Your task to perform on an android device: change the clock display to digital Image 0: 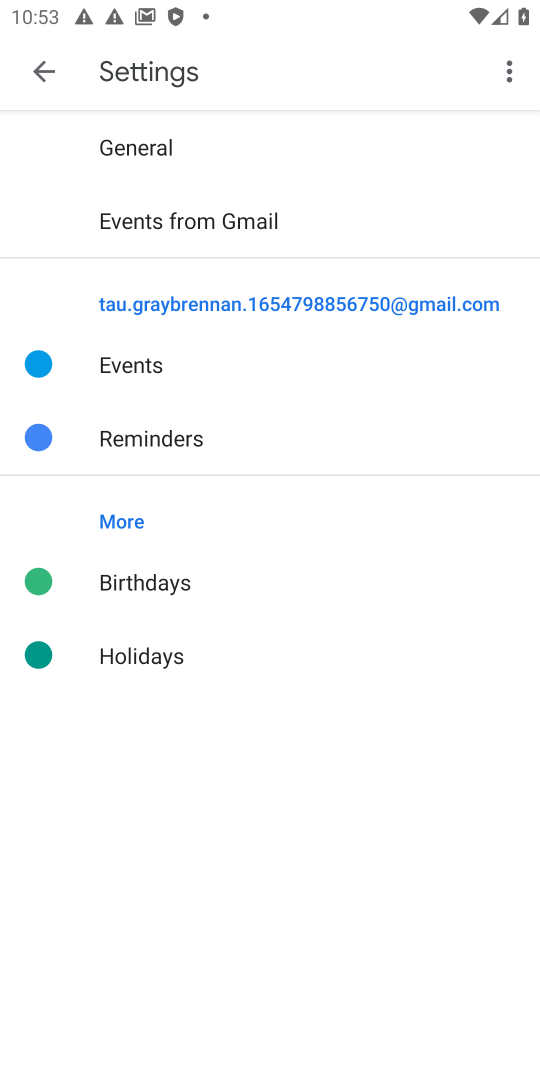
Step 0: press home button
Your task to perform on an android device: change the clock display to digital Image 1: 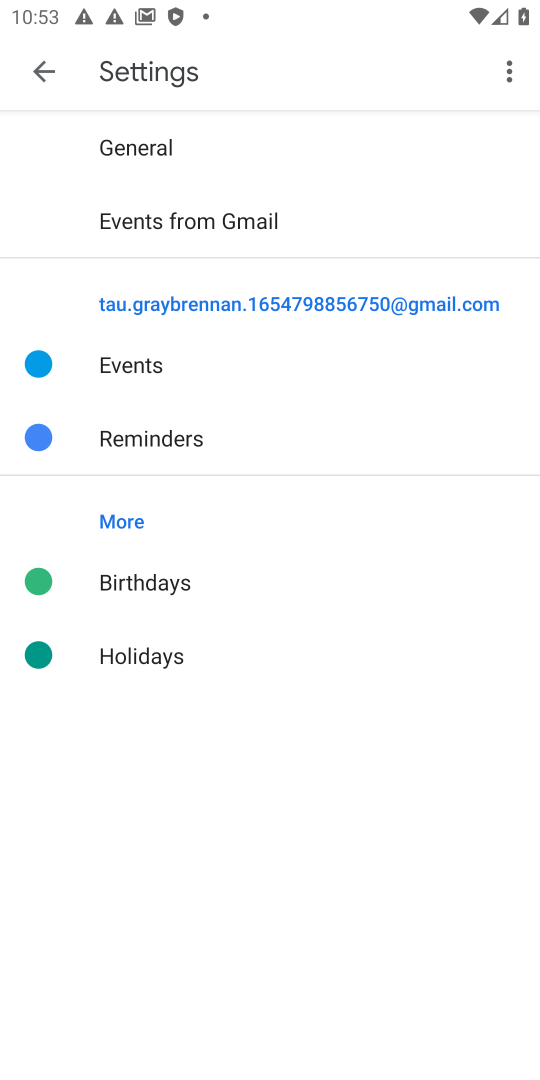
Step 1: press home button
Your task to perform on an android device: change the clock display to digital Image 2: 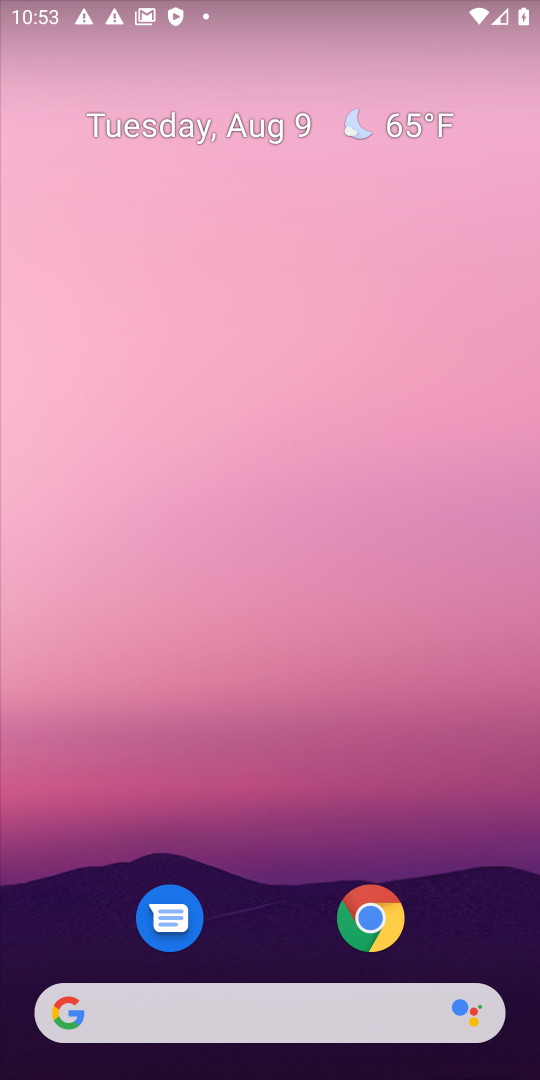
Step 2: drag from (275, 917) to (288, 176)
Your task to perform on an android device: change the clock display to digital Image 3: 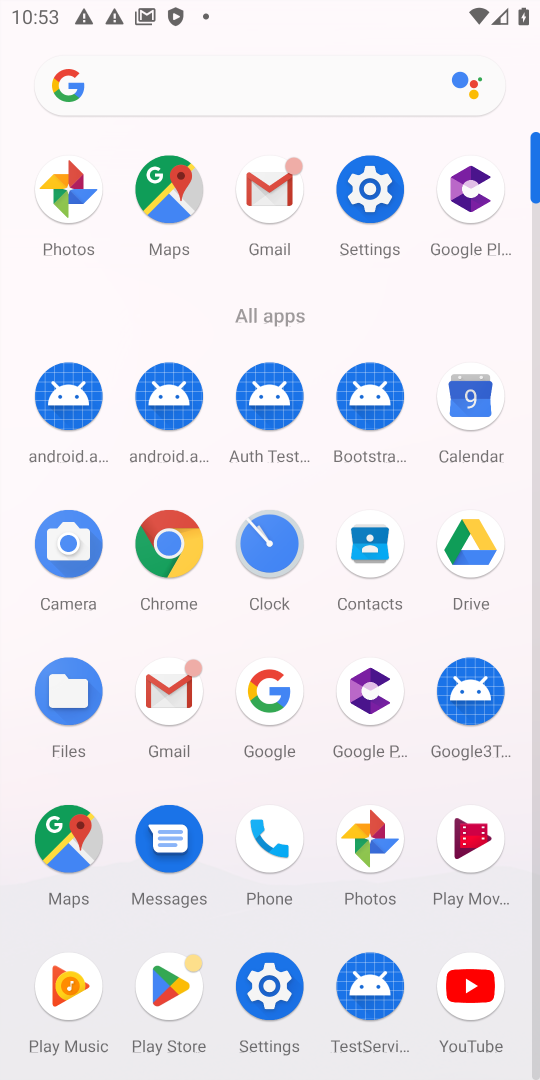
Step 3: click (280, 536)
Your task to perform on an android device: change the clock display to digital Image 4: 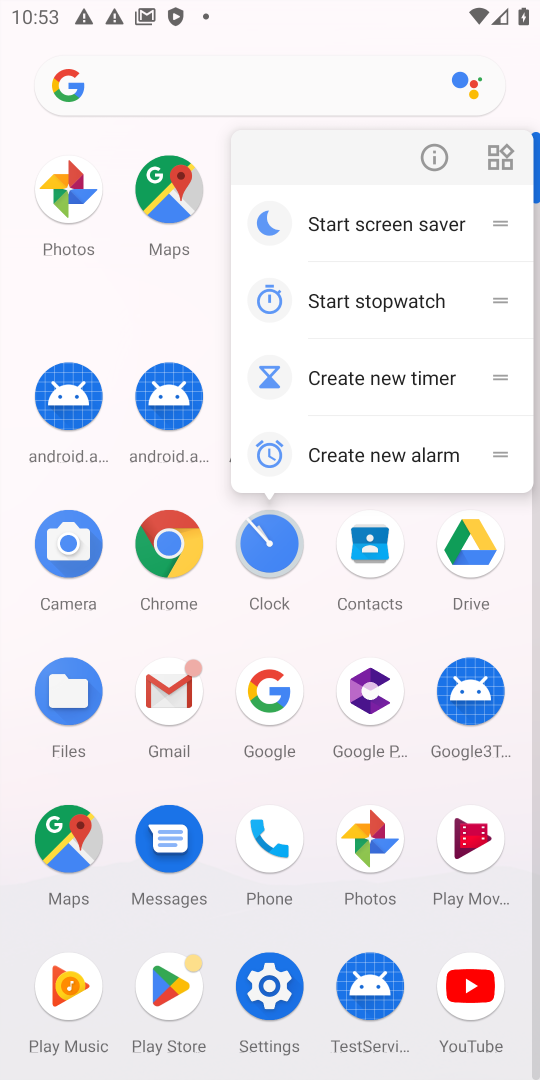
Step 4: click (276, 536)
Your task to perform on an android device: change the clock display to digital Image 5: 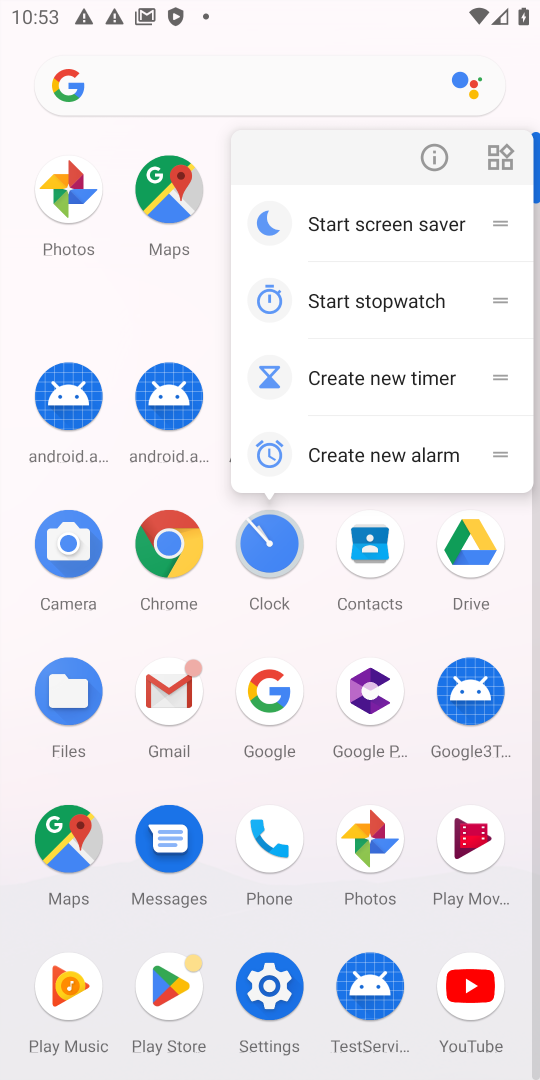
Step 5: click (270, 550)
Your task to perform on an android device: change the clock display to digital Image 6: 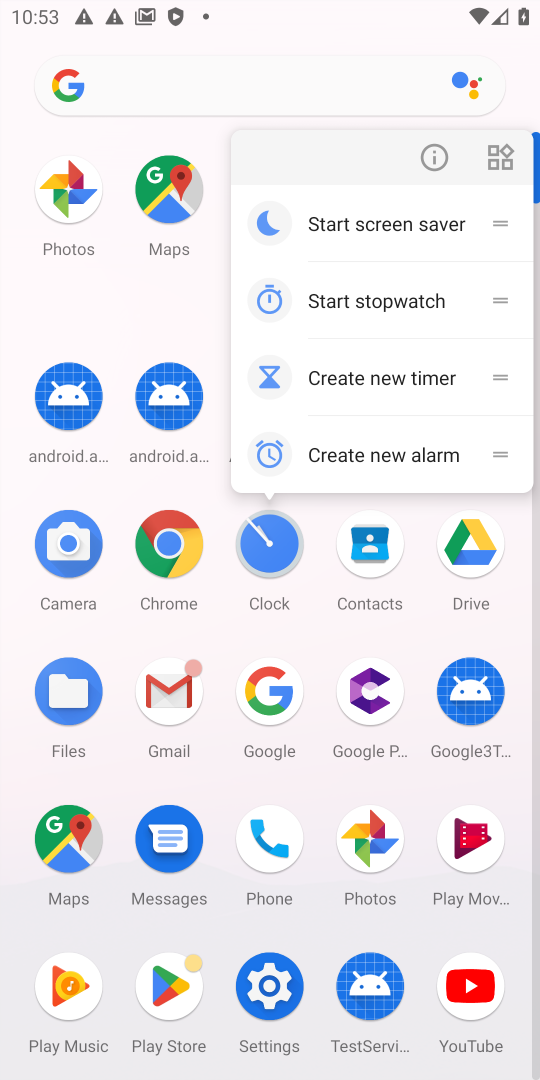
Step 6: click (267, 557)
Your task to perform on an android device: change the clock display to digital Image 7: 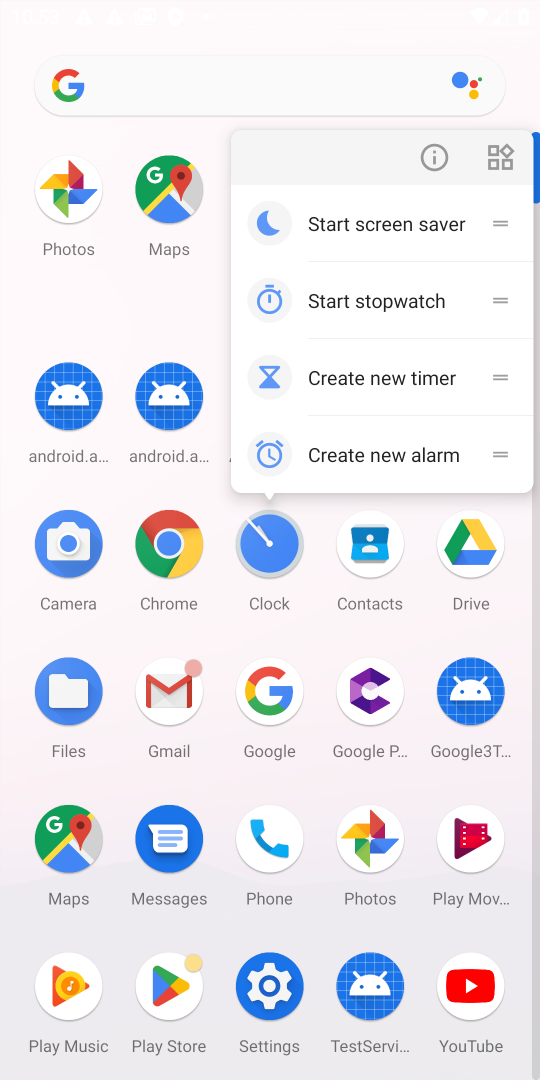
Step 7: click (523, 627)
Your task to perform on an android device: change the clock display to digital Image 8: 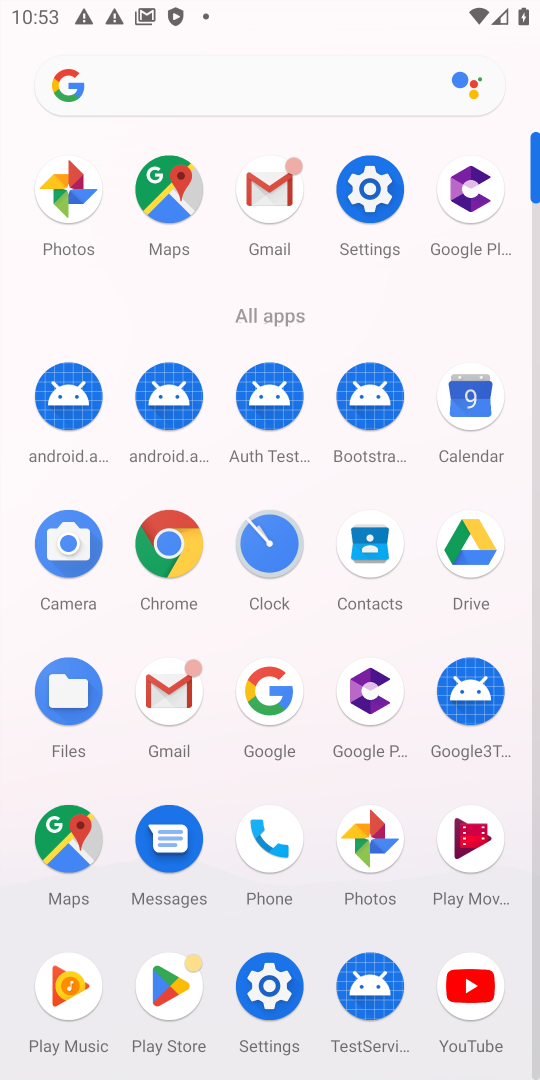
Step 8: click (276, 542)
Your task to perform on an android device: change the clock display to digital Image 9: 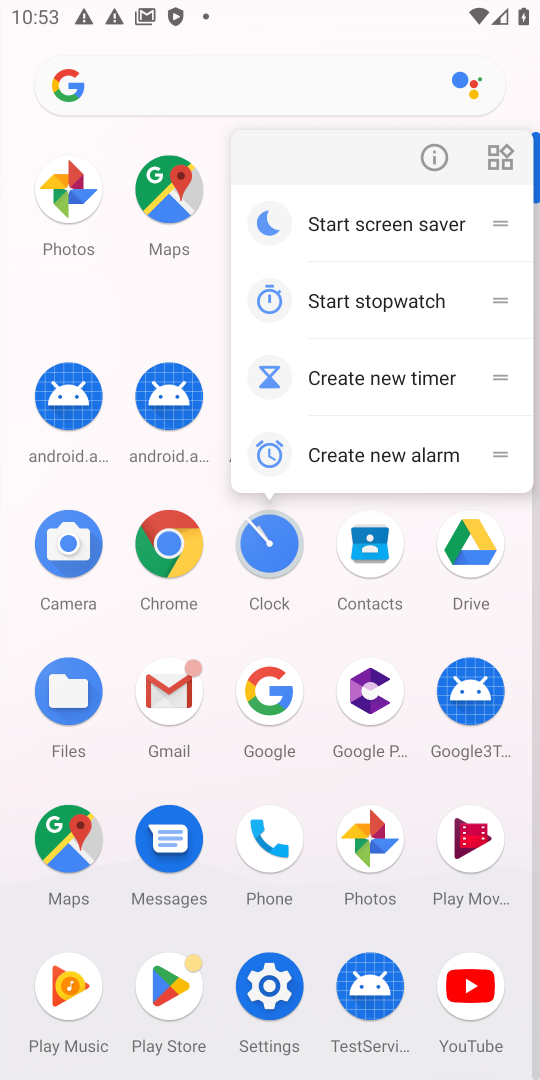
Step 9: click (257, 546)
Your task to perform on an android device: change the clock display to digital Image 10: 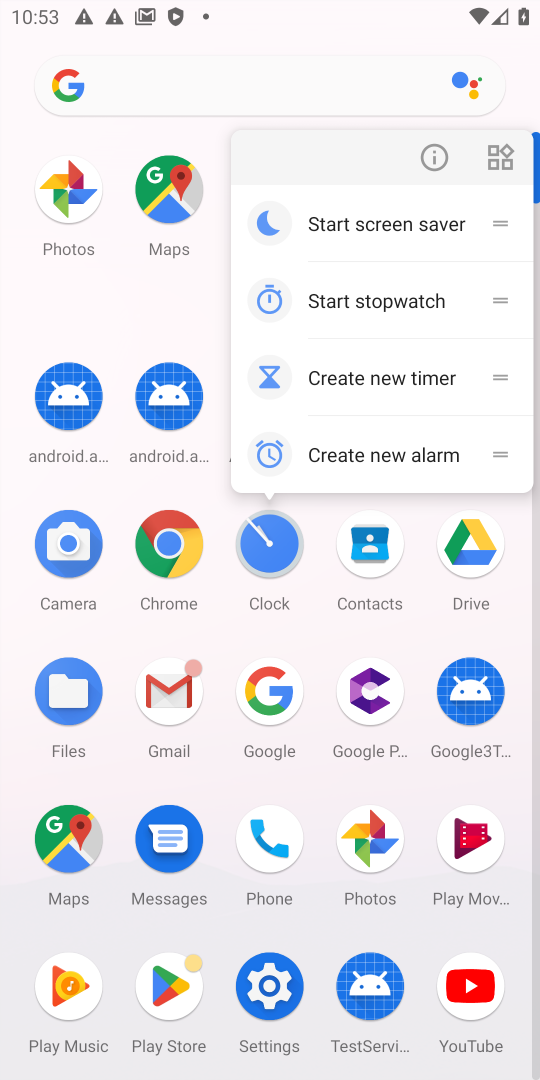
Step 10: task complete